Your task to perform on an android device: toggle notification dots Image 0: 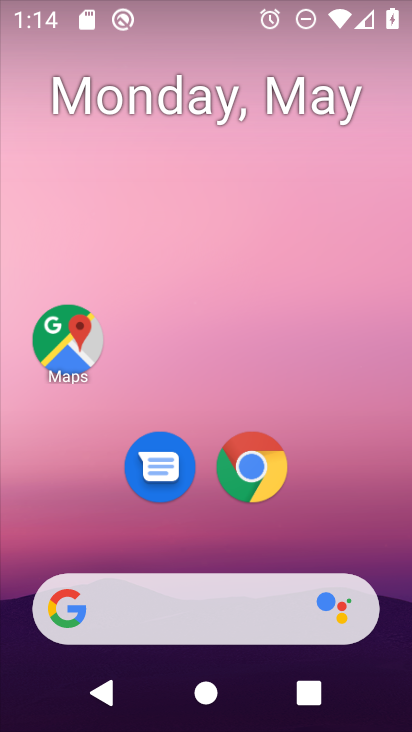
Step 0: drag from (394, 78) to (374, 5)
Your task to perform on an android device: toggle notification dots Image 1: 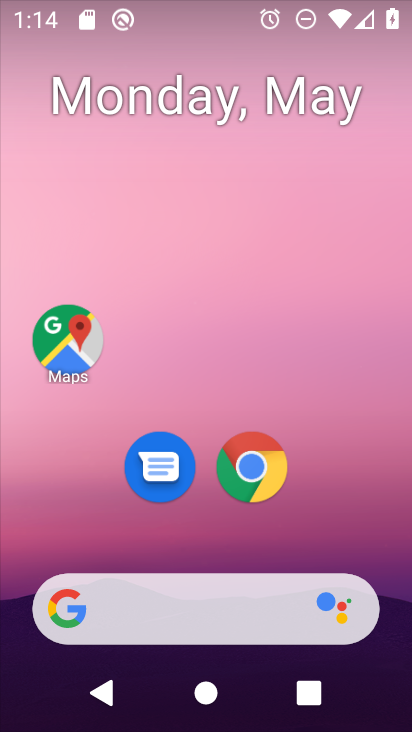
Step 1: drag from (385, 579) to (403, 462)
Your task to perform on an android device: toggle notification dots Image 2: 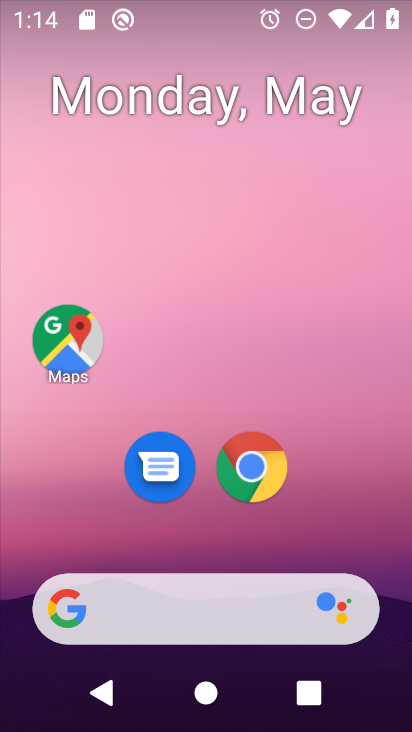
Step 2: drag from (345, 534) to (327, 31)
Your task to perform on an android device: toggle notification dots Image 3: 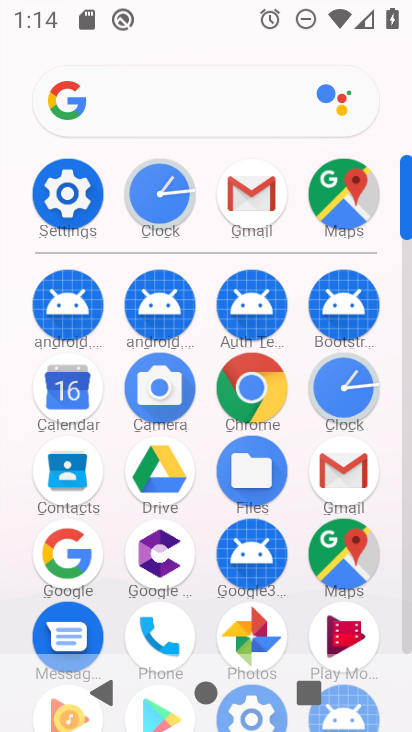
Step 3: click (57, 196)
Your task to perform on an android device: toggle notification dots Image 4: 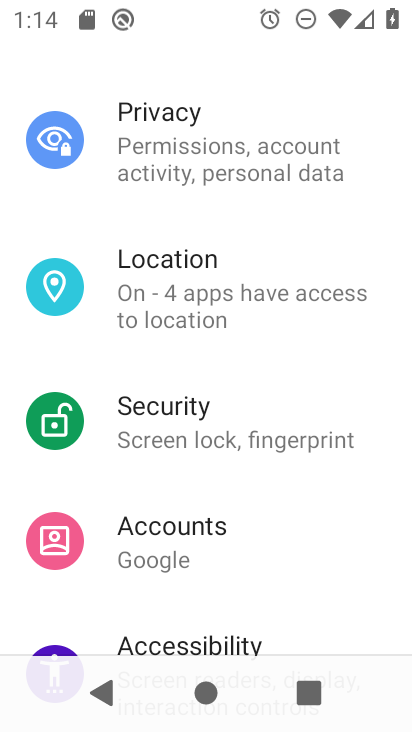
Step 4: drag from (362, 375) to (365, 639)
Your task to perform on an android device: toggle notification dots Image 5: 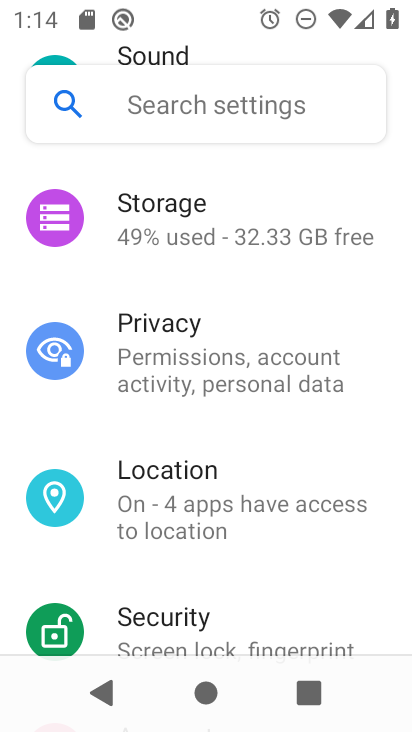
Step 5: drag from (324, 309) to (325, 606)
Your task to perform on an android device: toggle notification dots Image 6: 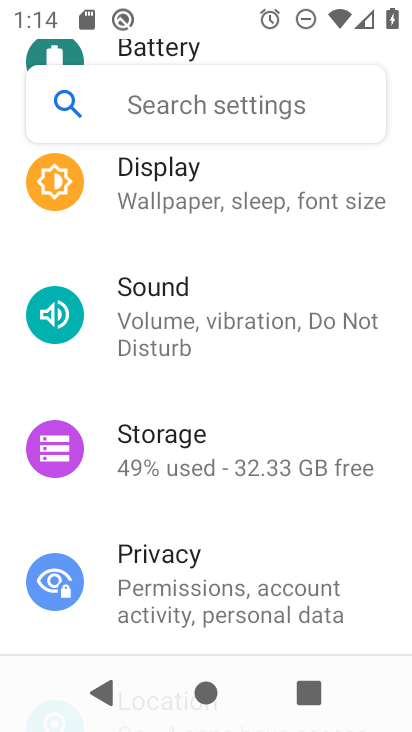
Step 6: drag from (312, 524) to (319, 617)
Your task to perform on an android device: toggle notification dots Image 7: 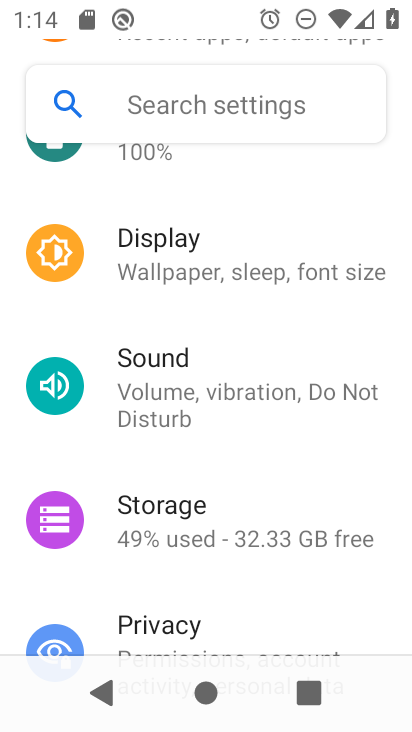
Step 7: drag from (349, 236) to (361, 620)
Your task to perform on an android device: toggle notification dots Image 8: 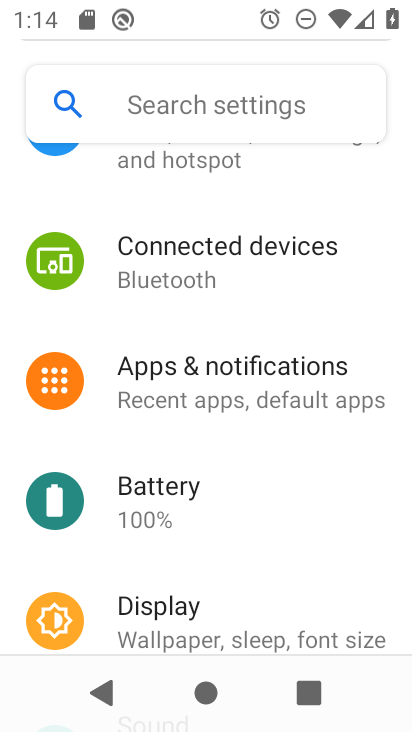
Step 8: click (227, 384)
Your task to perform on an android device: toggle notification dots Image 9: 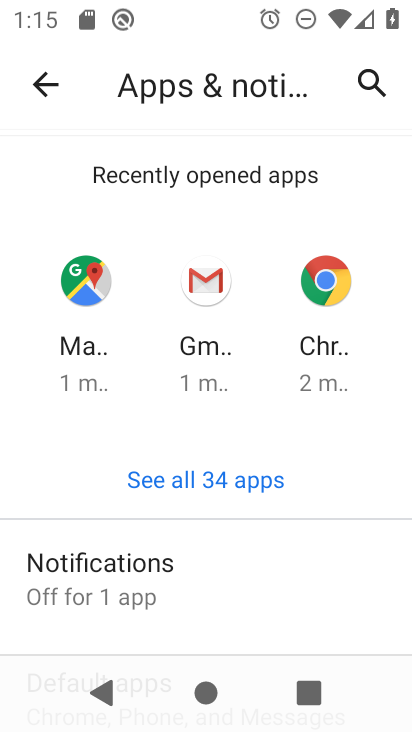
Step 9: click (56, 550)
Your task to perform on an android device: toggle notification dots Image 10: 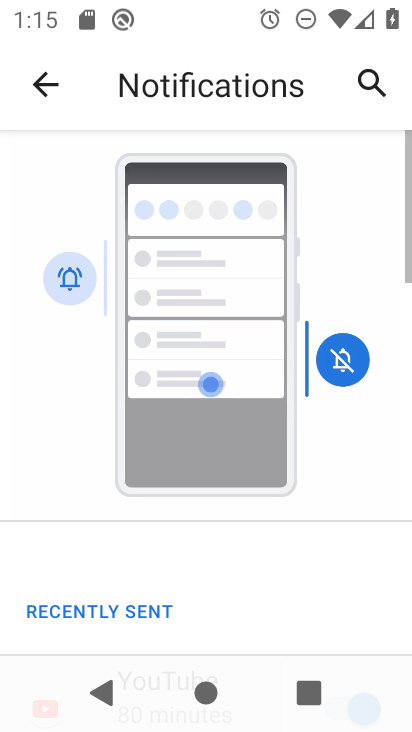
Step 10: drag from (244, 594) to (227, 184)
Your task to perform on an android device: toggle notification dots Image 11: 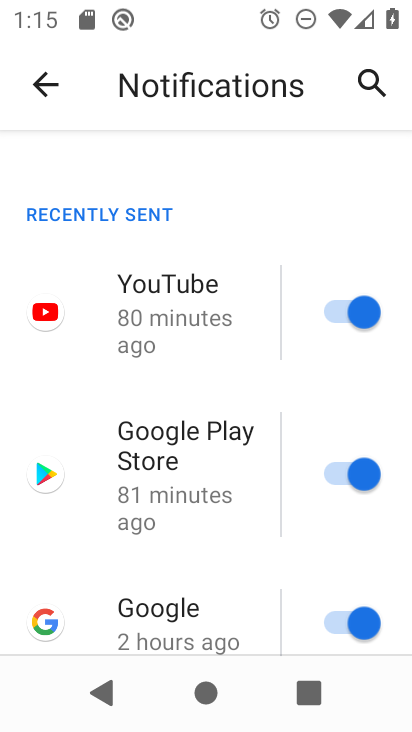
Step 11: drag from (206, 537) to (207, 153)
Your task to perform on an android device: toggle notification dots Image 12: 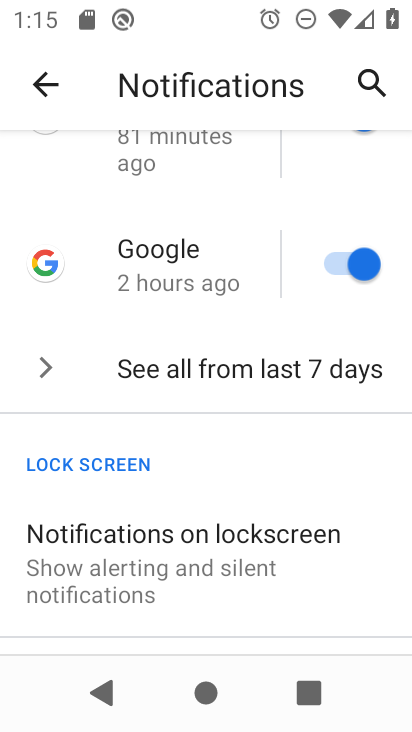
Step 12: drag from (208, 532) to (214, 246)
Your task to perform on an android device: toggle notification dots Image 13: 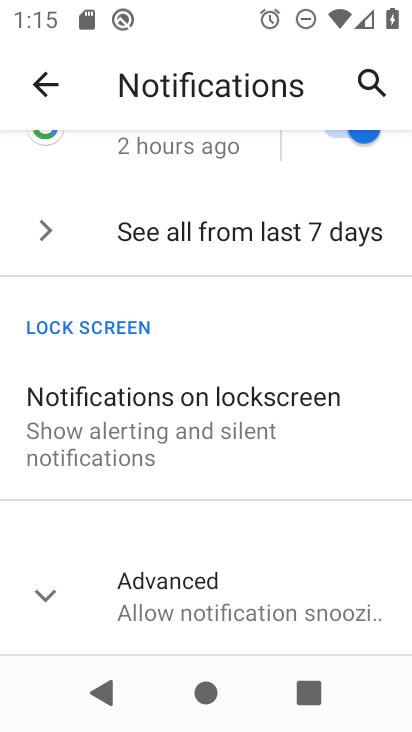
Step 13: click (41, 605)
Your task to perform on an android device: toggle notification dots Image 14: 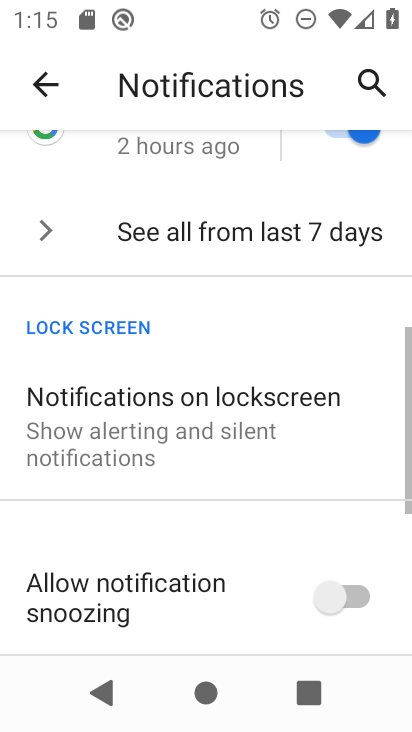
Step 14: drag from (196, 597) to (189, 178)
Your task to perform on an android device: toggle notification dots Image 15: 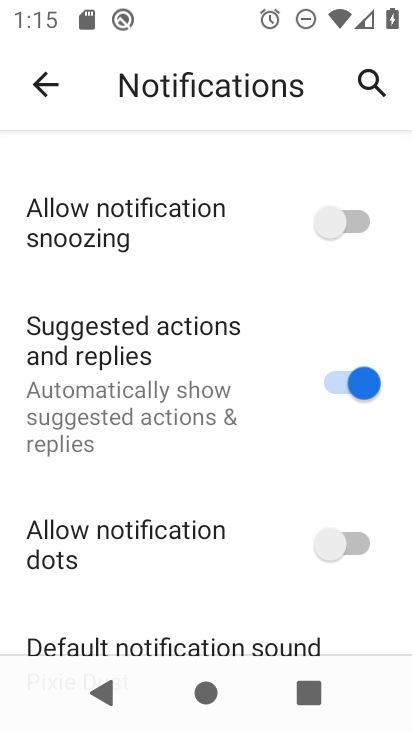
Step 15: drag from (170, 616) to (187, 352)
Your task to perform on an android device: toggle notification dots Image 16: 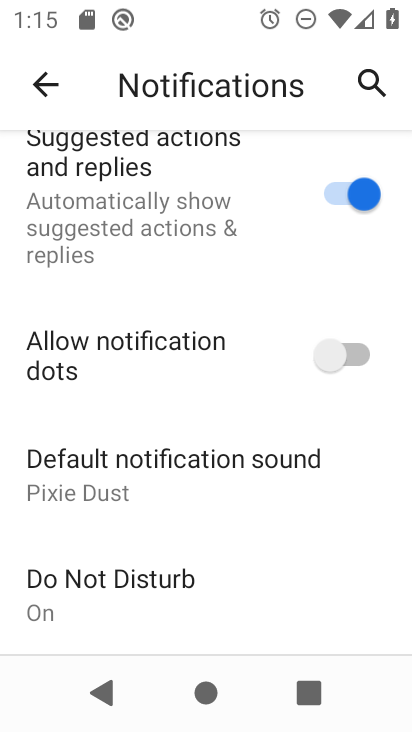
Step 16: click (339, 353)
Your task to perform on an android device: toggle notification dots Image 17: 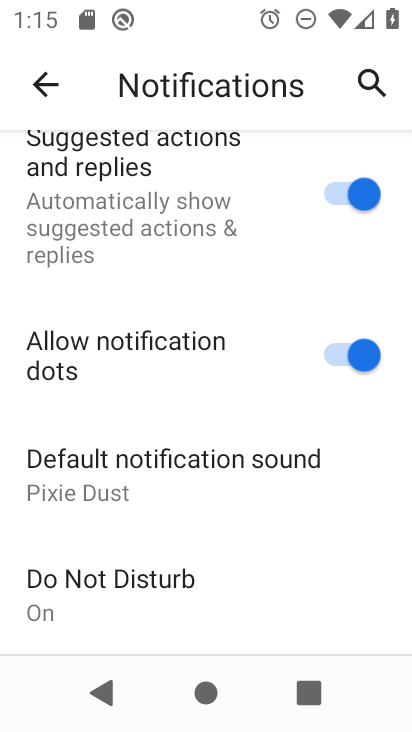
Step 17: task complete